Your task to perform on an android device: What is the news today? Image 0: 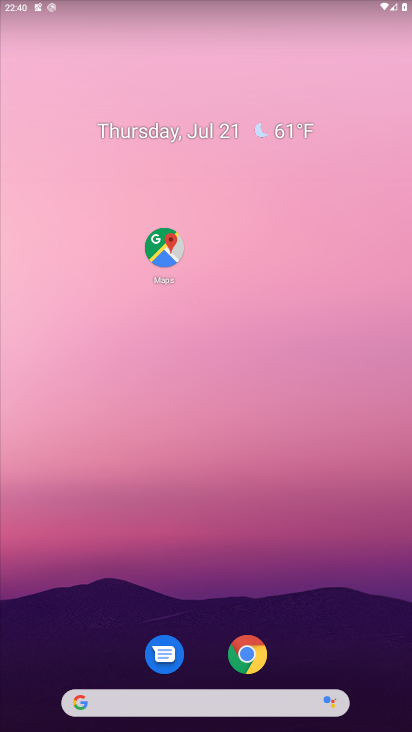
Step 0: click (106, 707)
Your task to perform on an android device: What is the news today? Image 1: 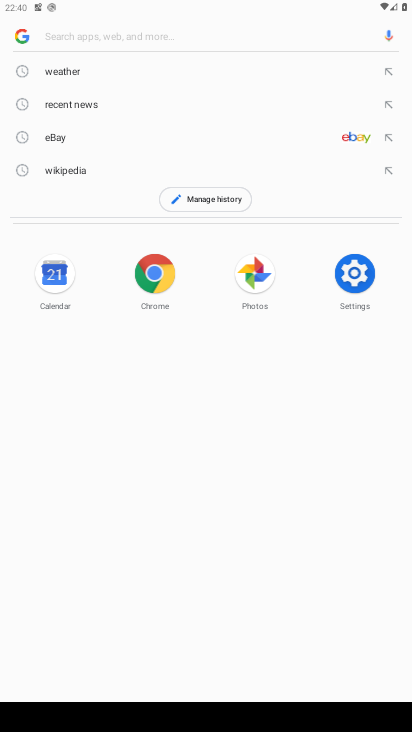
Step 1: type "What is the news today?"
Your task to perform on an android device: What is the news today? Image 2: 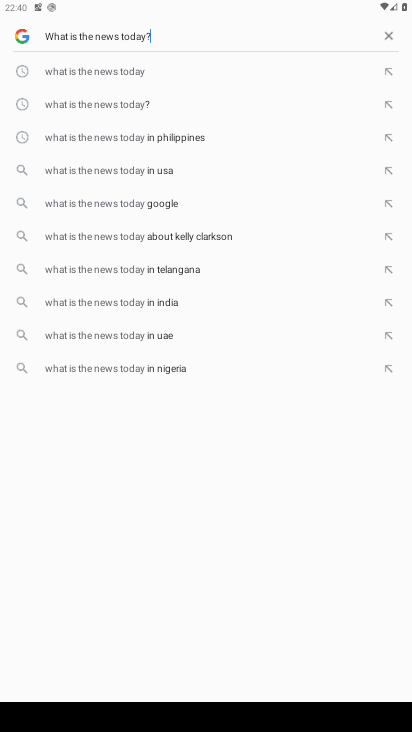
Step 2: type ""
Your task to perform on an android device: What is the news today? Image 3: 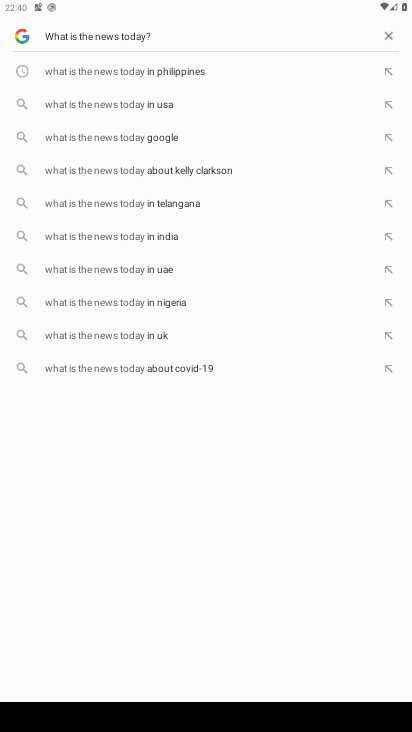
Step 3: type ""
Your task to perform on an android device: What is the news today? Image 4: 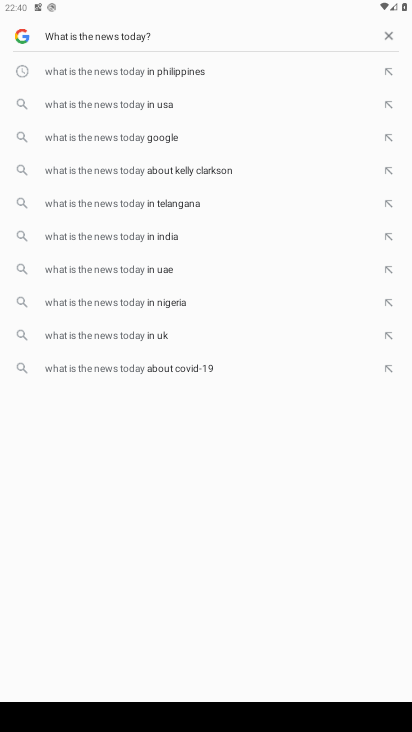
Step 4: type ""
Your task to perform on an android device: What is the news today? Image 5: 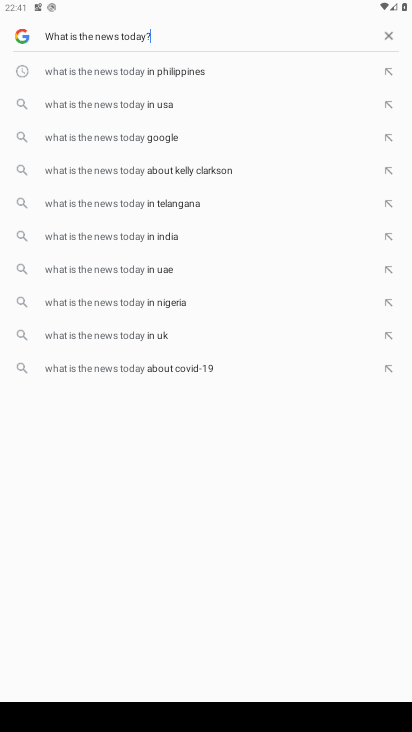
Step 5: task complete